Your task to perform on an android device: Go to display settings Image 0: 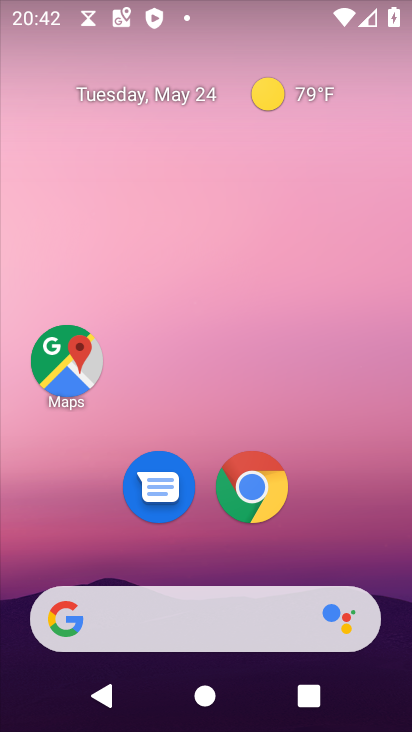
Step 0: press home button
Your task to perform on an android device: Go to display settings Image 1: 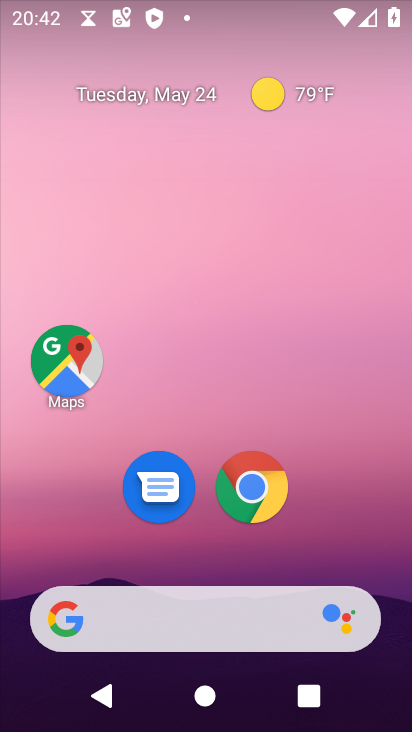
Step 1: drag from (40, 487) to (211, 99)
Your task to perform on an android device: Go to display settings Image 2: 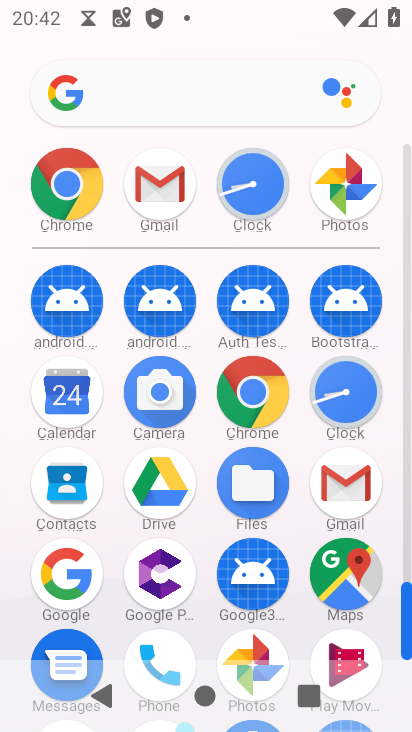
Step 2: drag from (1, 715) to (241, 146)
Your task to perform on an android device: Go to display settings Image 3: 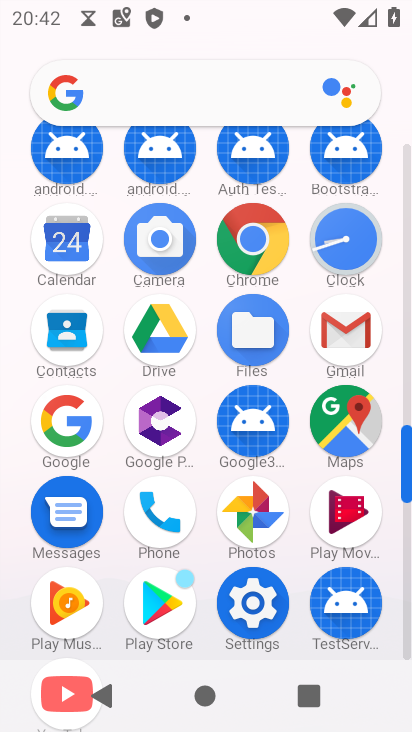
Step 3: click (252, 603)
Your task to perform on an android device: Go to display settings Image 4: 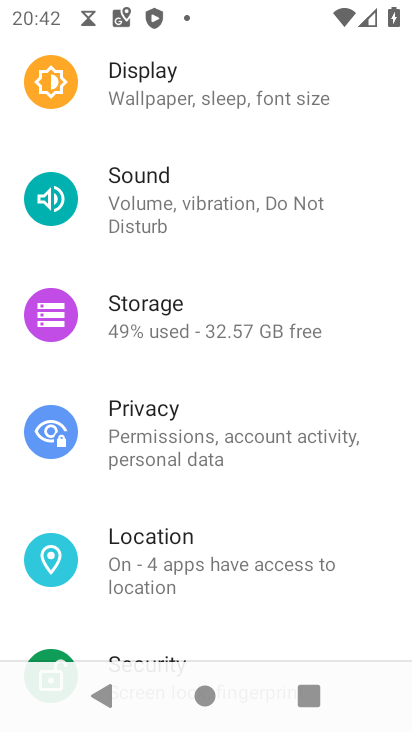
Step 4: click (164, 98)
Your task to perform on an android device: Go to display settings Image 5: 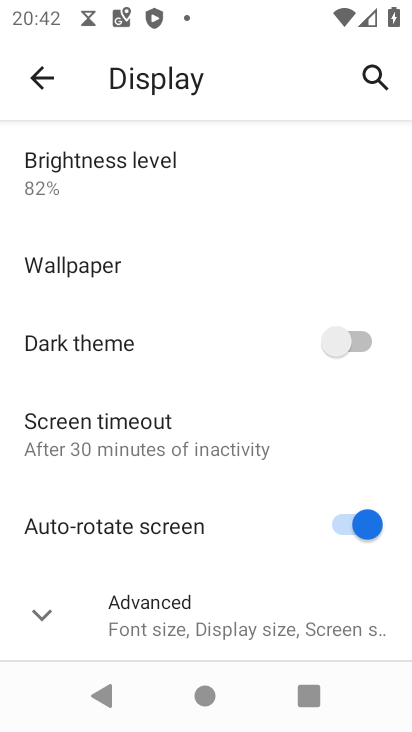
Step 5: task complete